Your task to perform on an android device: turn vacation reply on in the gmail app Image 0: 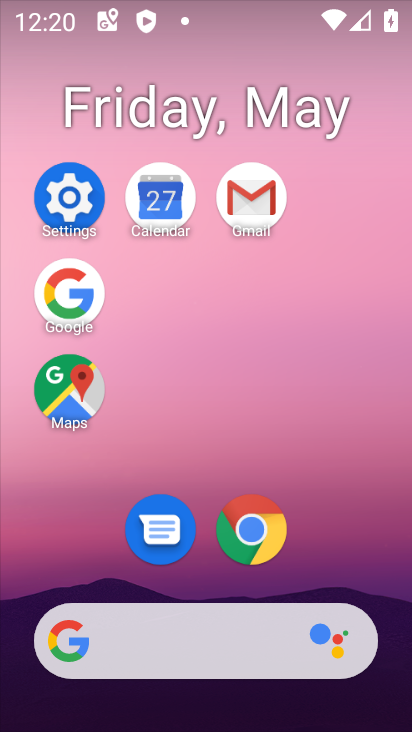
Step 0: click (232, 208)
Your task to perform on an android device: turn vacation reply on in the gmail app Image 1: 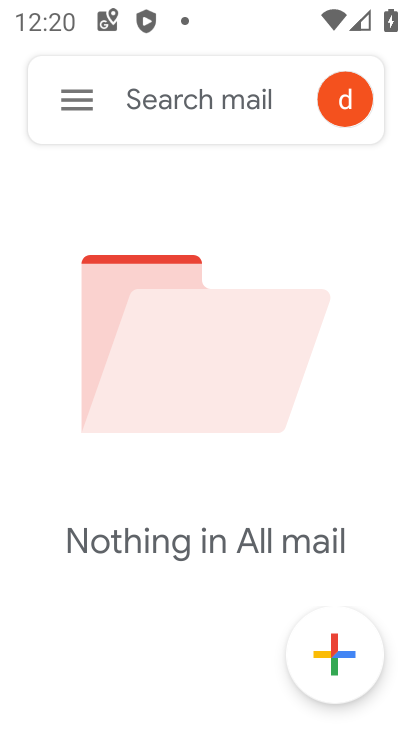
Step 1: click (56, 91)
Your task to perform on an android device: turn vacation reply on in the gmail app Image 2: 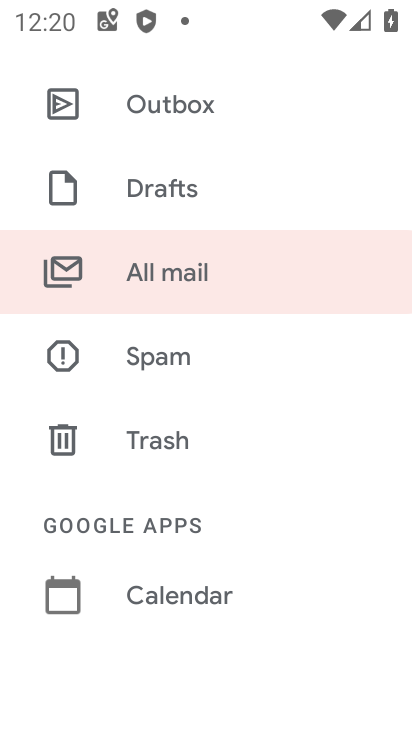
Step 2: drag from (276, 570) to (299, 146)
Your task to perform on an android device: turn vacation reply on in the gmail app Image 3: 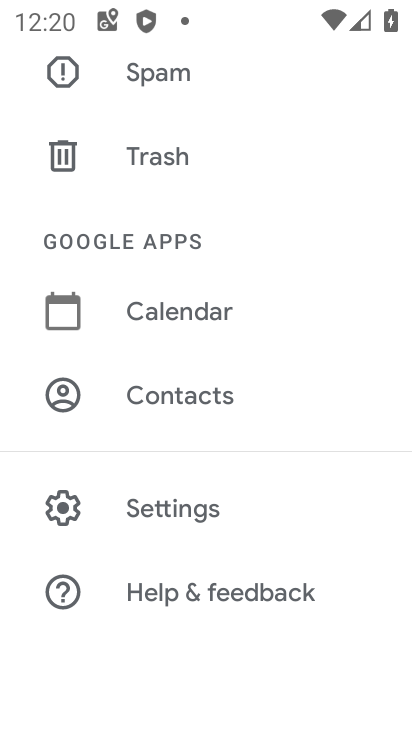
Step 3: click (244, 495)
Your task to perform on an android device: turn vacation reply on in the gmail app Image 4: 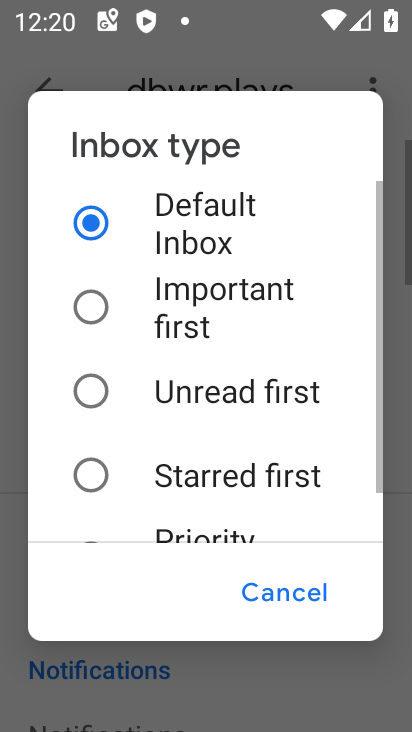
Step 4: drag from (244, 495) to (289, 144)
Your task to perform on an android device: turn vacation reply on in the gmail app Image 5: 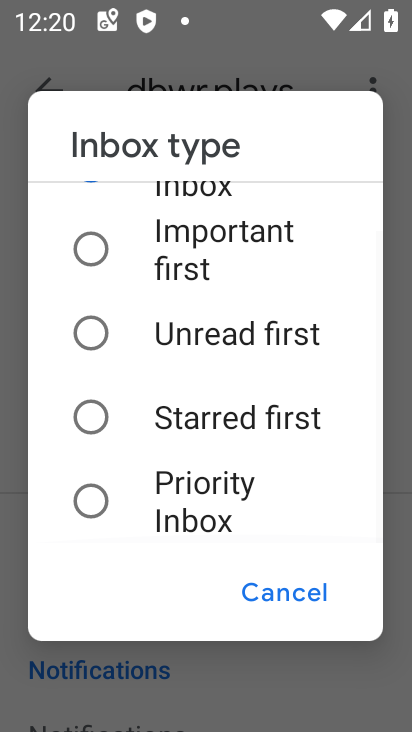
Step 5: click (259, 599)
Your task to perform on an android device: turn vacation reply on in the gmail app Image 6: 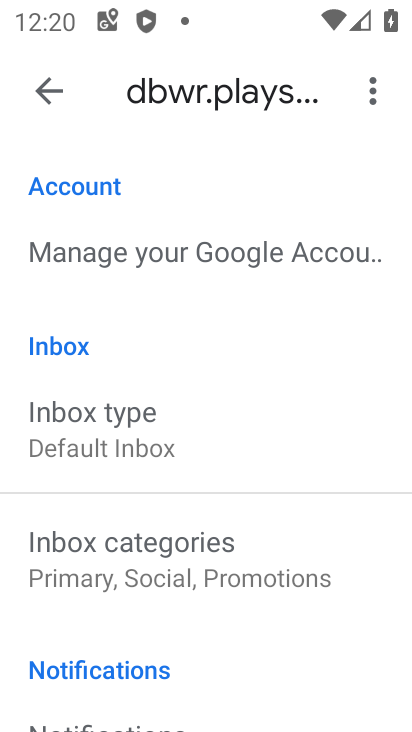
Step 6: drag from (246, 579) to (293, 202)
Your task to perform on an android device: turn vacation reply on in the gmail app Image 7: 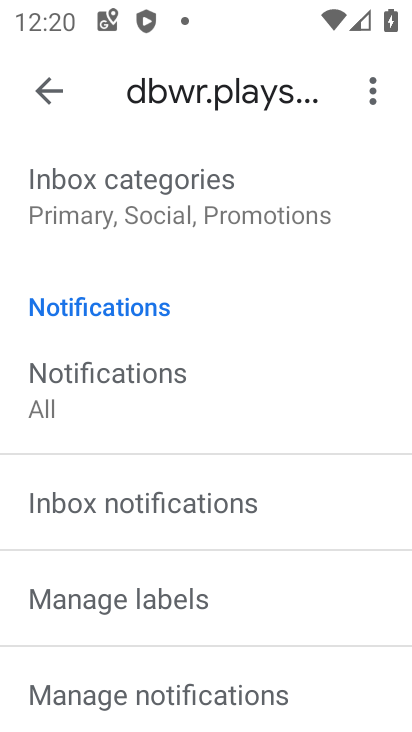
Step 7: drag from (278, 631) to (270, 125)
Your task to perform on an android device: turn vacation reply on in the gmail app Image 8: 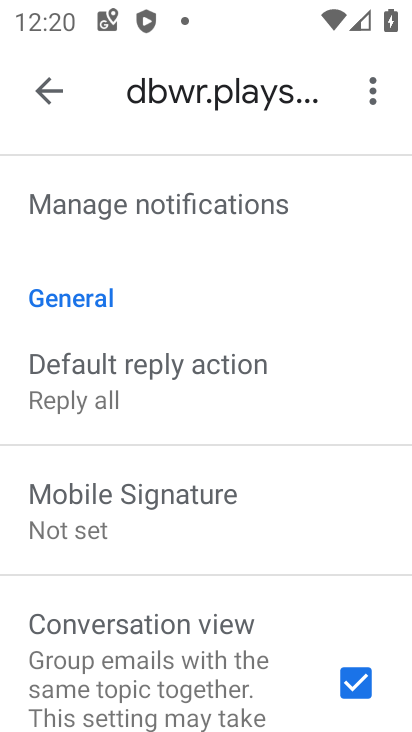
Step 8: drag from (277, 622) to (328, 171)
Your task to perform on an android device: turn vacation reply on in the gmail app Image 9: 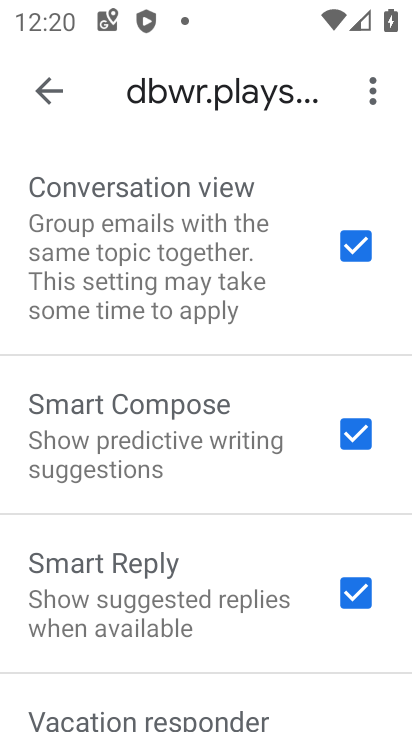
Step 9: drag from (273, 643) to (258, 222)
Your task to perform on an android device: turn vacation reply on in the gmail app Image 10: 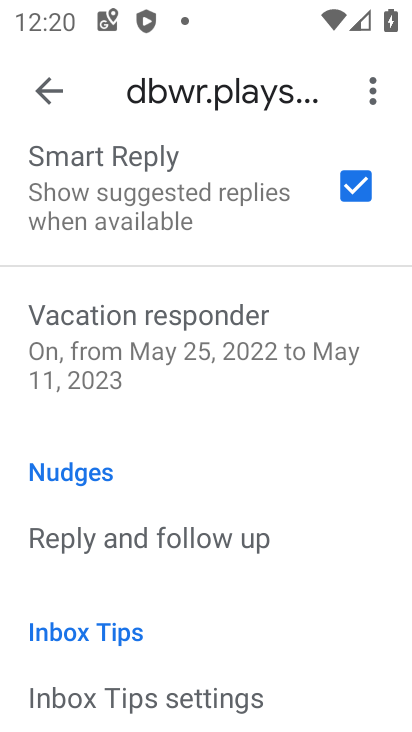
Step 10: click (241, 337)
Your task to perform on an android device: turn vacation reply on in the gmail app Image 11: 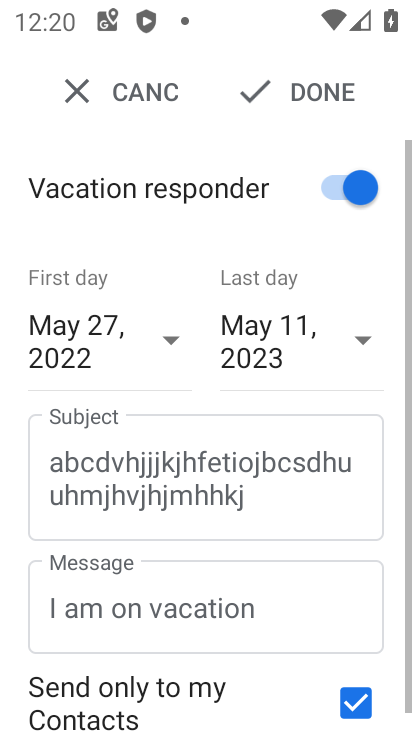
Step 11: click (344, 89)
Your task to perform on an android device: turn vacation reply on in the gmail app Image 12: 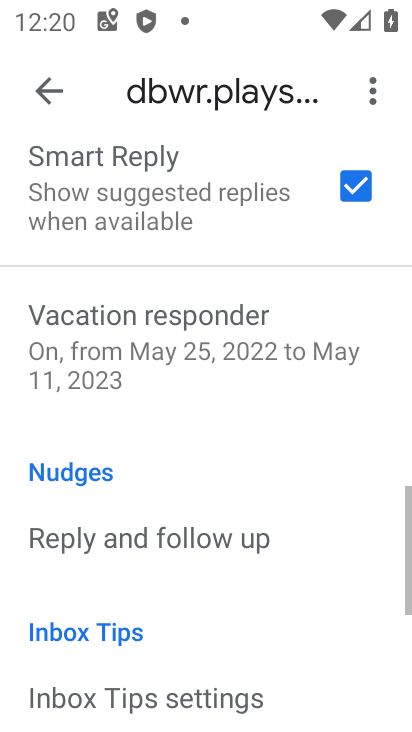
Step 12: task complete